Your task to perform on an android device: Toggle the flashlight Image 0: 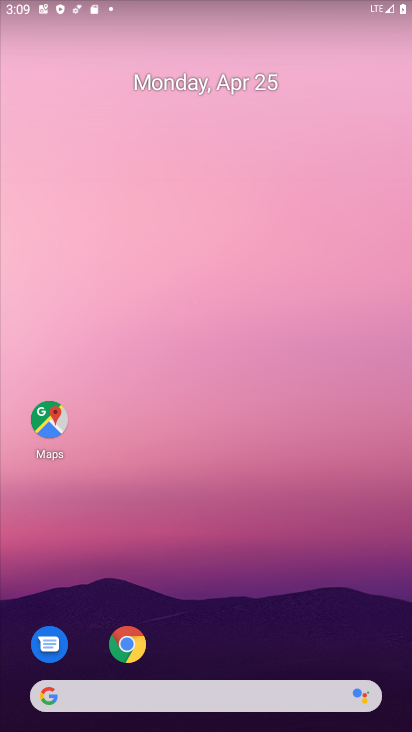
Step 0: drag from (186, 7) to (218, 289)
Your task to perform on an android device: Toggle the flashlight Image 1: 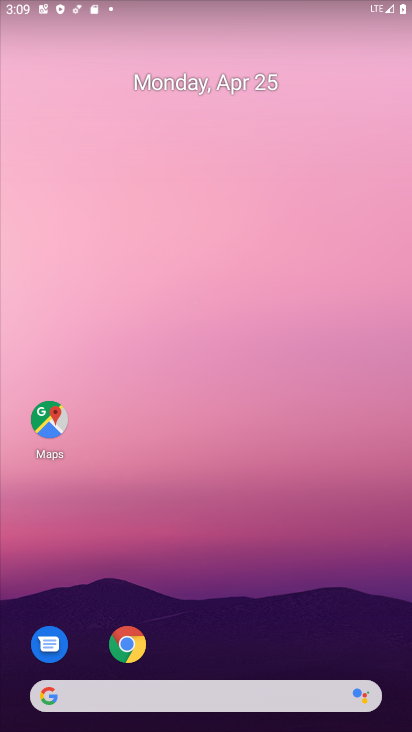
Step 1: drag from (188, 10) to (237, 382)
Your task to perform on an android device: Toggle the flashlight Image 2: 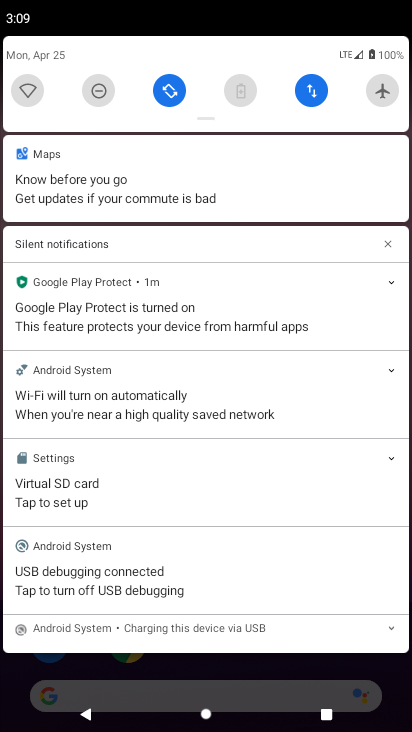
Step 2: drag from (206, 106) to (337, 709)
Your task to perform on an android device: Toggle the flashlight Image 3: 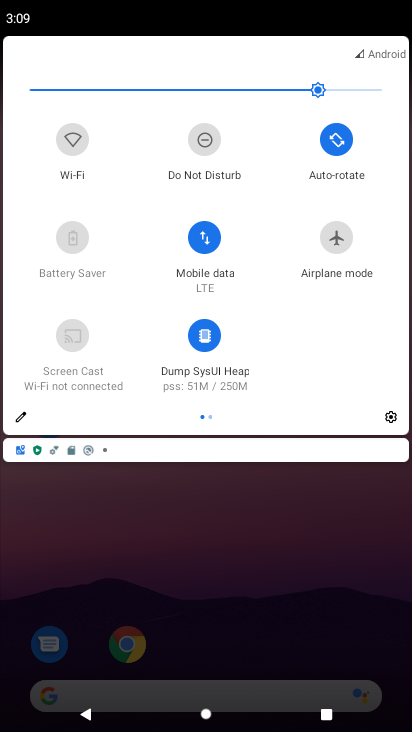
Step 3: drag from (367, 318) to (109, 297)
Your task to perform on an android device: Toggle the flashlight Image 4: 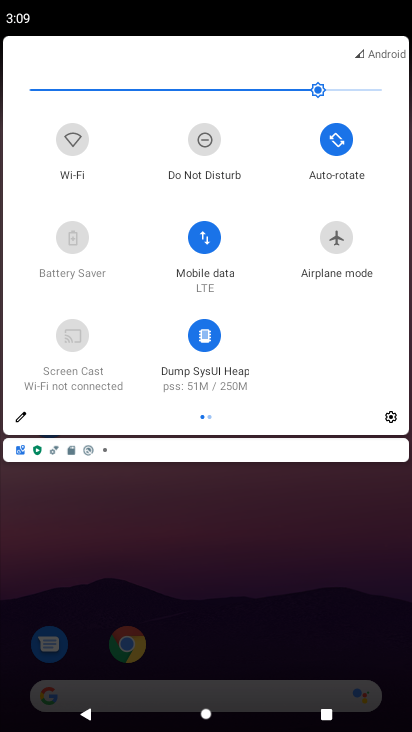
Step 4: click (15, 423)
Your task to perform on an android device: Toggle the flashlight Image 5: 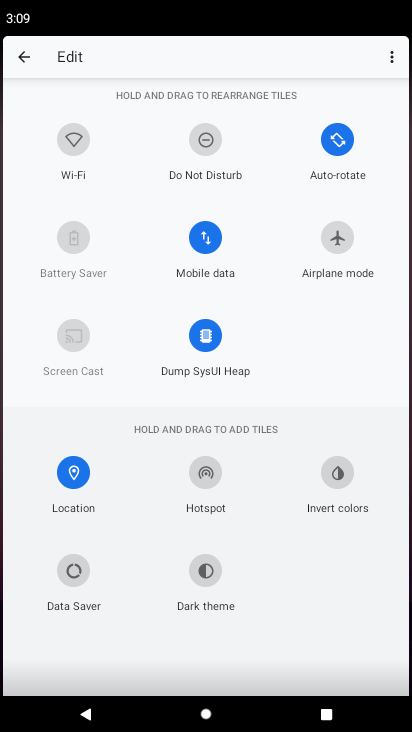
Step 5: task complete